Your task to perform on an android device: move an email to a new category in the gmail app Image 0: 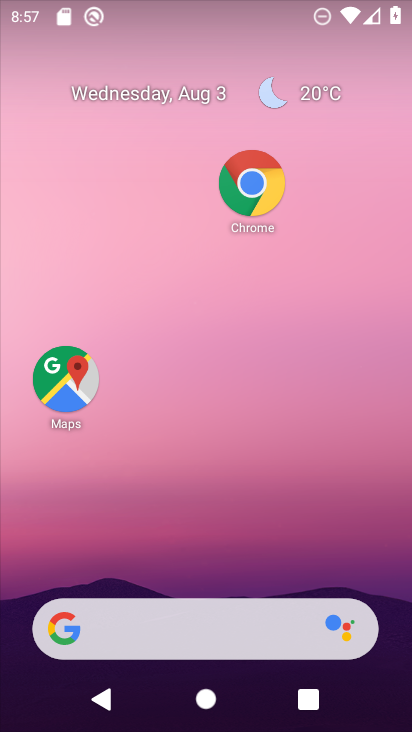
Step 0: drag from (189, 503) to (189, 9)
Your task to perform on an android device: move an email to a new category in the gmail app Image 1: 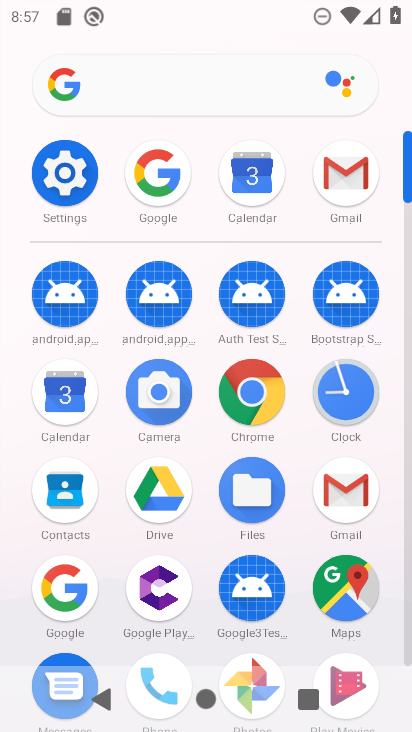
Step 1: click (343, 192)
Your task to perform on an android device: move an email to a new category in the gmail app Image 2: 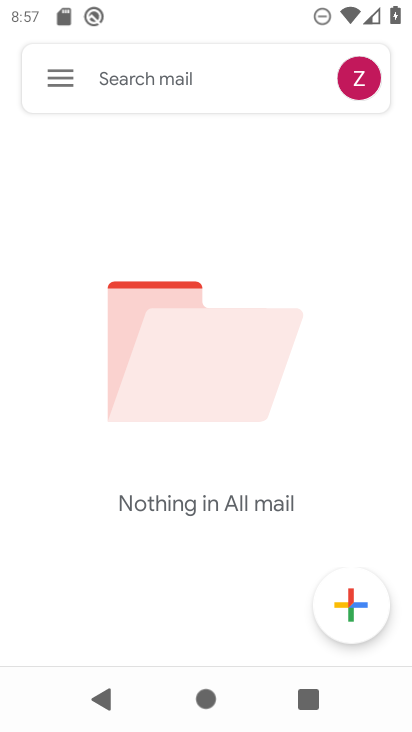
Step 2: task complete